Your task to perform on an android device: turn notification dots on Image 0: 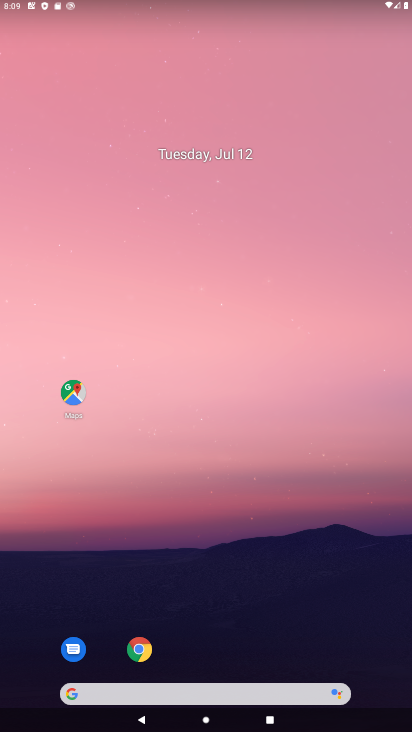
Step 0: drag from (247, 658) to (294, 153)
Your task to perform on an android device: turn notification dots on Image 1: 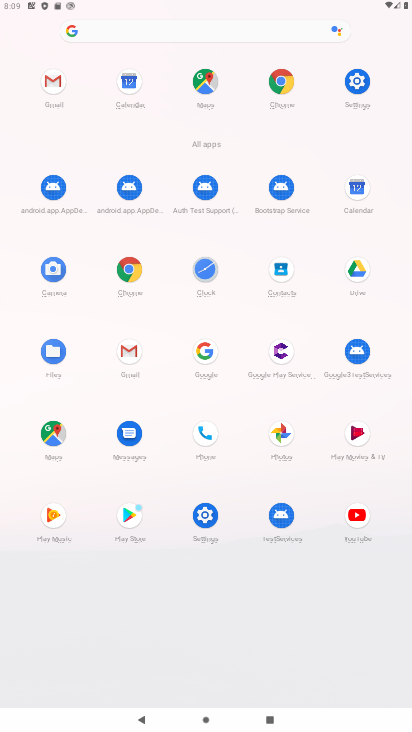
Step 1: click (201, 515)
Your task to perform on an android device: turn notification dots on Image 2: 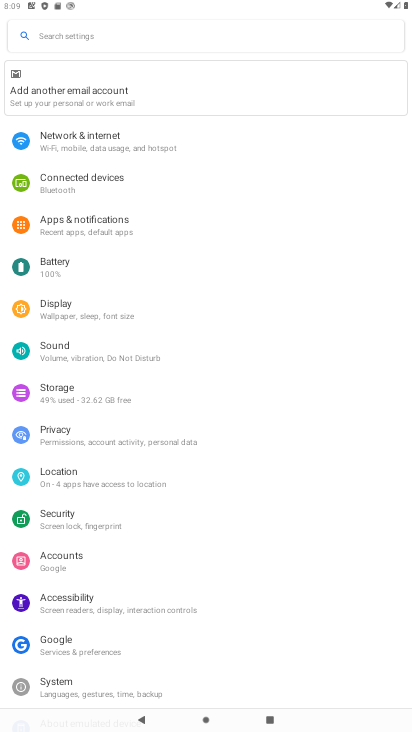
Step 2: click (104, 225)
Your task to perform on an android device: turn notification dots on Image 3: 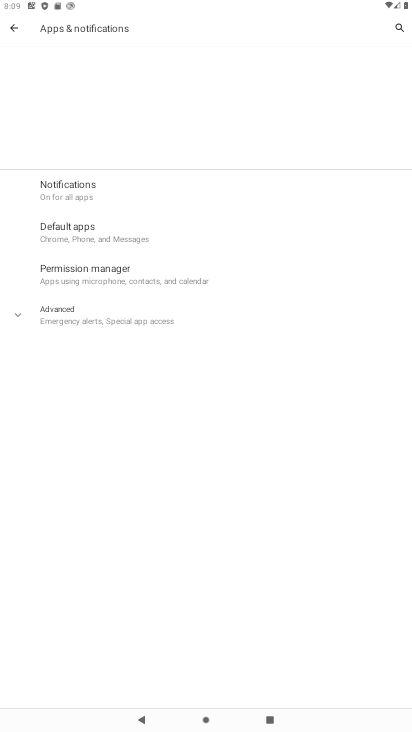
Step 3: click (91, 192)
Your task to perform on an android device: turn notification dots on Image 4: 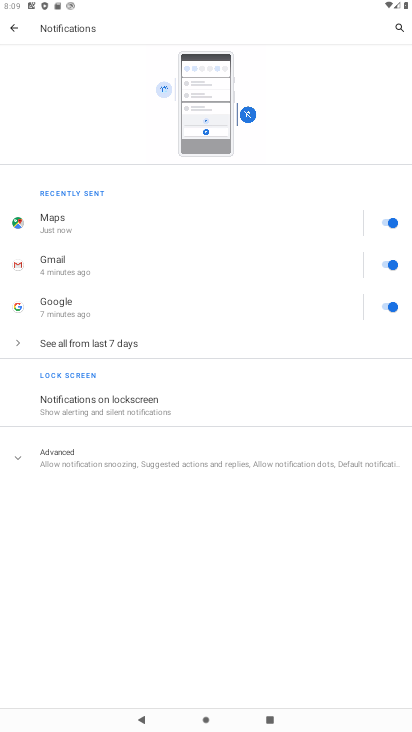
Step 4: click (53, 456)
Your task to perform on an android device: turn notification dots on Image 5: 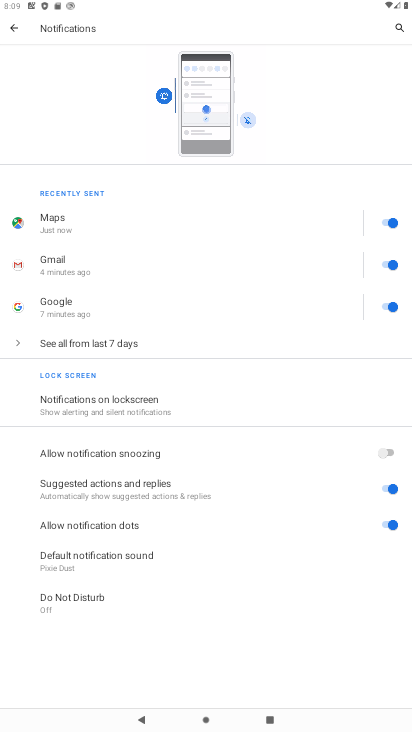
Step 5: task complete